Your task to perform on an android device: set the timer Image 0: 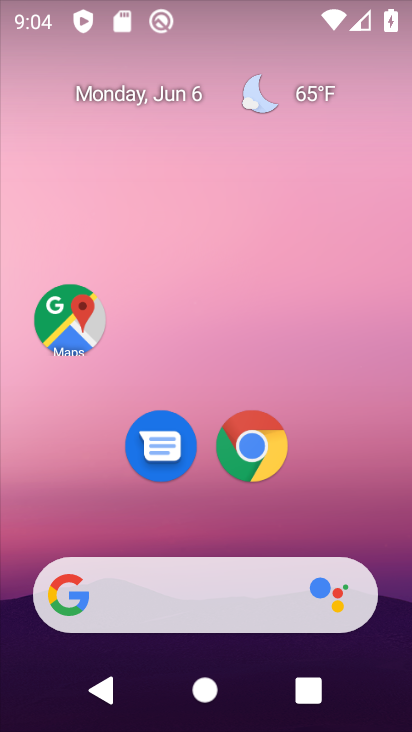
Step 0: drag from (196, 538) to (207, 317)
Your task to perform on an android device: set the timer Image 1: 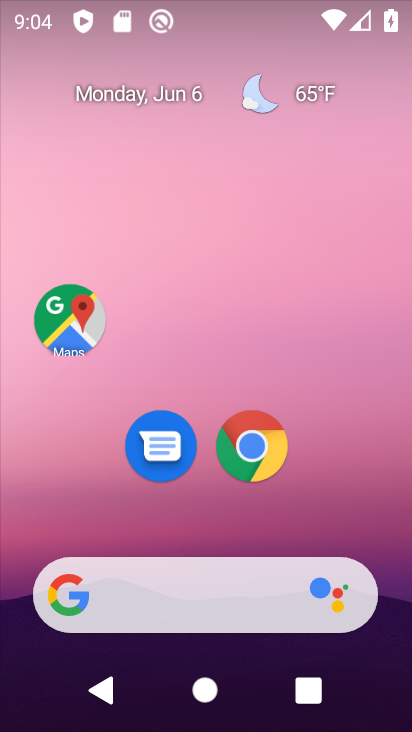
Step 1: drag from (229, 554) to (227, 127)
Your task to perform on an android device: set the timer Image 2: 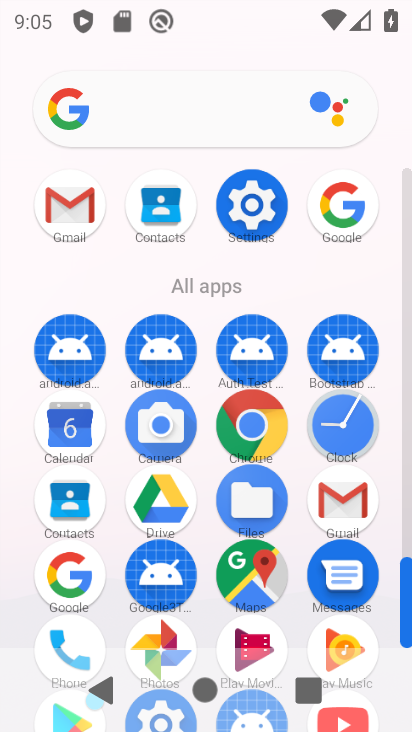
Step 2: click (346, 433)
Your task to perform on an android device: set the timer Image 3: 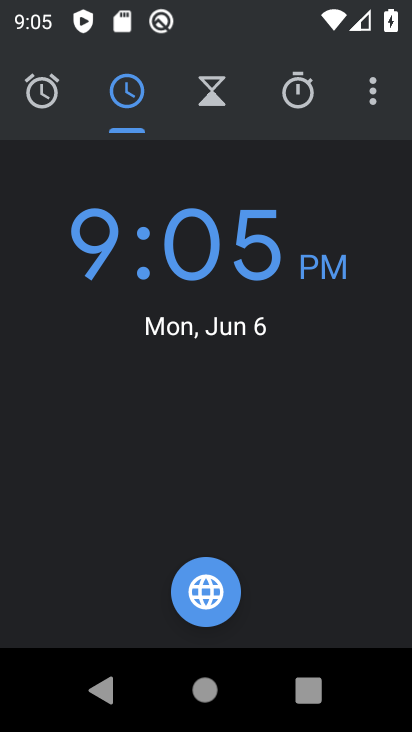
Step 3: click (378, 95)
Your task to perform on an android device: set the timer Image 4: 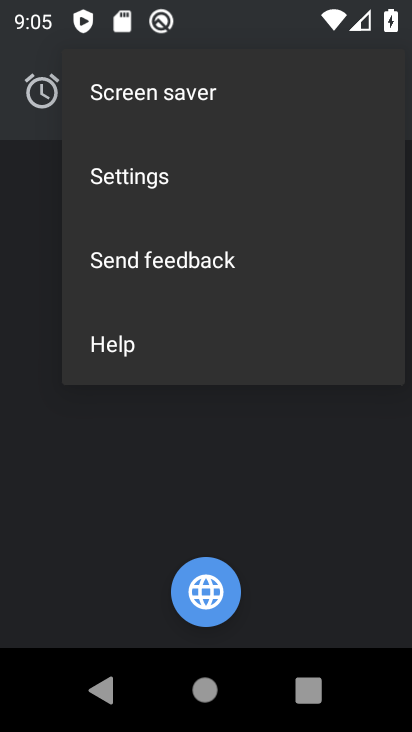
Step 4: click (35, 103)
Your task to perform on an android device: set the timer Image 5: 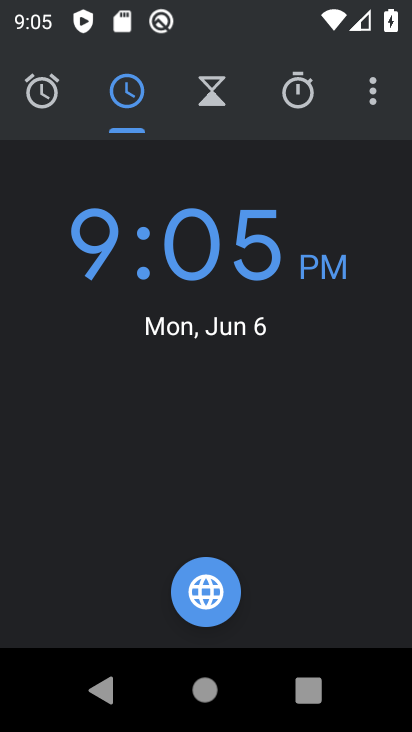
Step 5: click (232, 112)
Your task to perform on an android device: set the timer Image 6: 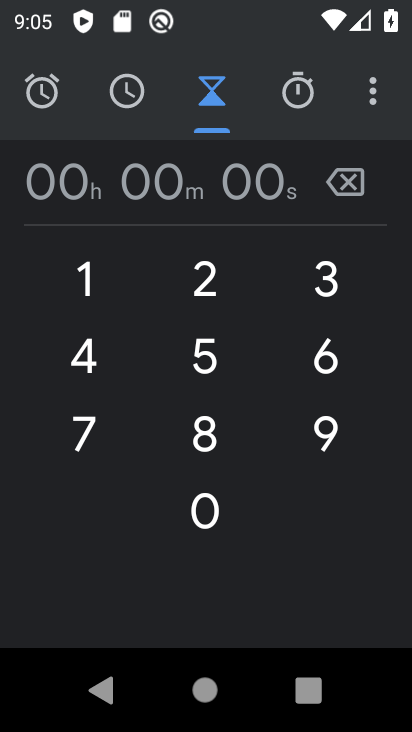
Step 6: click (203, 504)
Your task to perform on an android device: set the timer Image 7: 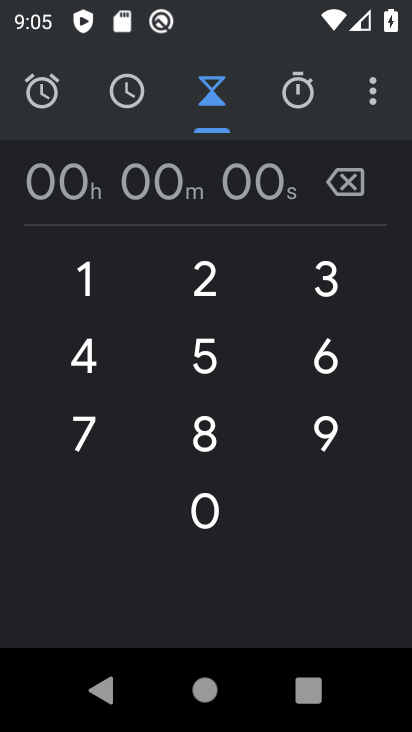
Step 7: click (93, 292)
Your task to perform on an android device: set the timer Image 8: 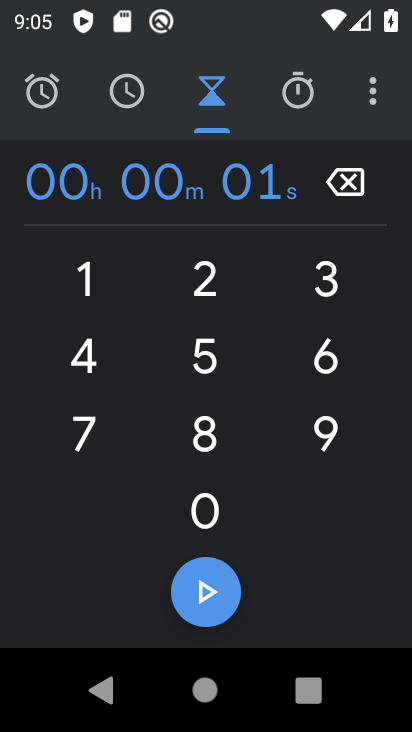
Step 8: click (219, 518)
Your task to perform on an android device: set the timer Image 9: 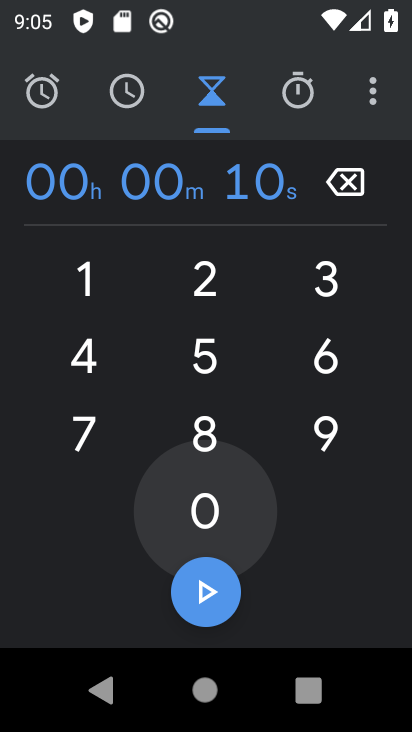
Step 9: click (213, 443)
Your task to perform on an android device: set the timer Image 10: 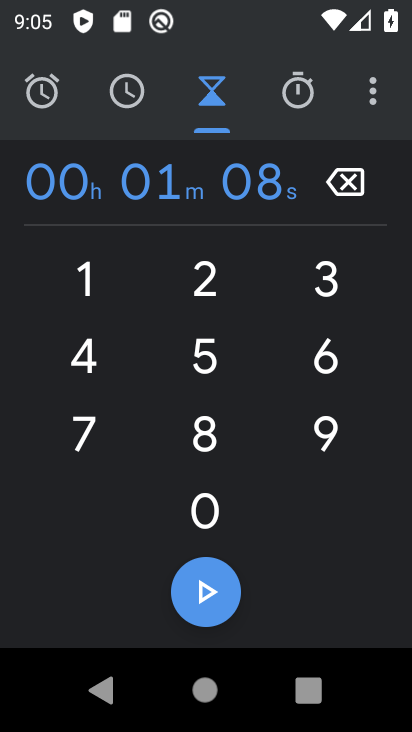
Step 10: click (211, 518)
Your task to perform on an android device: set the timer Image 11: 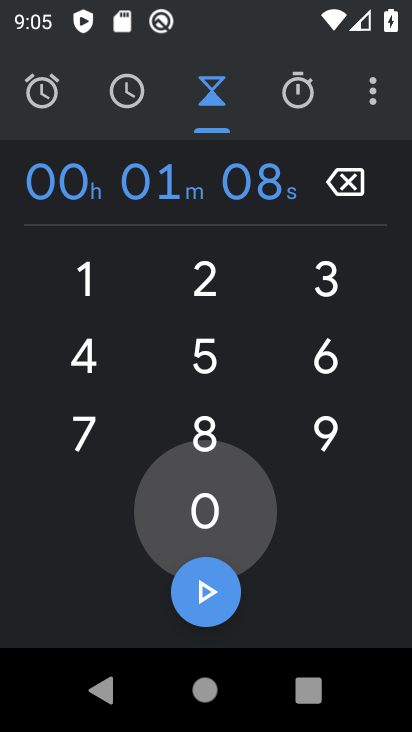
Step 11: click (208, 514)
Your task to perform on an android device: set the timer Image 12: 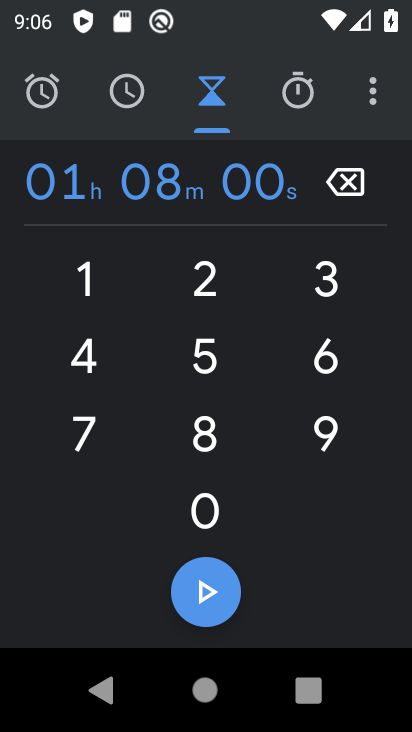
Step 12: click (210, 594)
Your task to perform on an android device: set the timer Image 13: 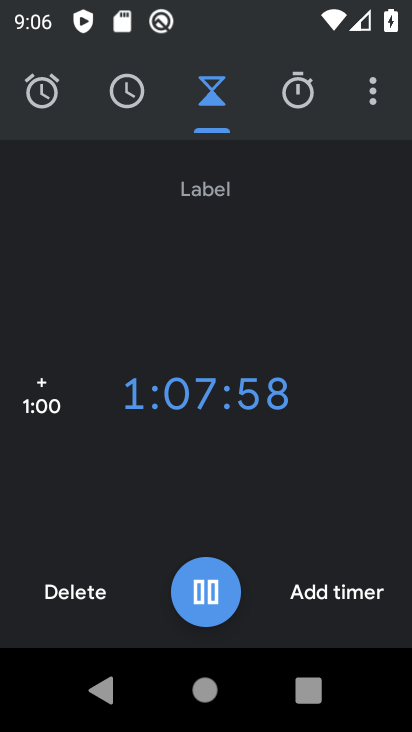
Step 13: task complete